Your task to perform on an android device: Open Google Chrome and click the shortcut for Amazon.com Image 0: 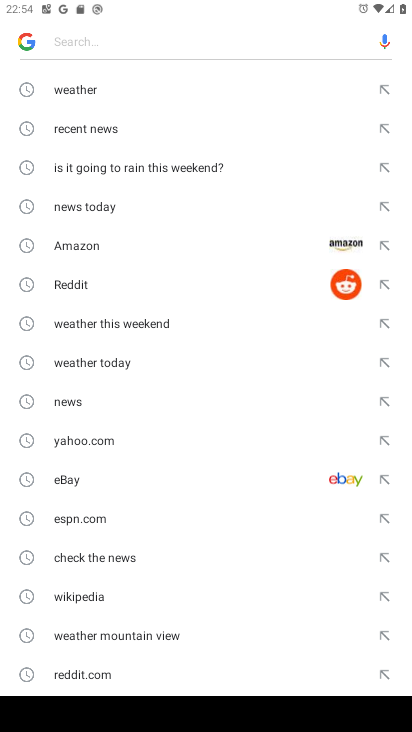
Step 0: press home button
Your task to perform on an android device: Open Google Chrome and click the shortcut for Amazon.com Image 1: 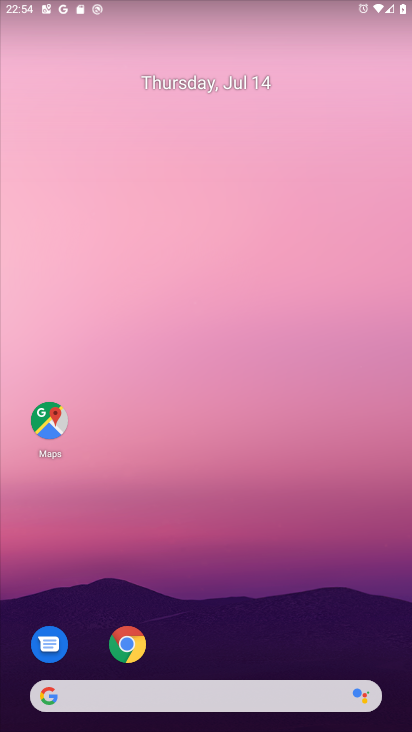
Step 1: click (127, 636)
Your task to perform on an android device: Open Google Chrome and click the shortcut for Amazon.com Image 2: 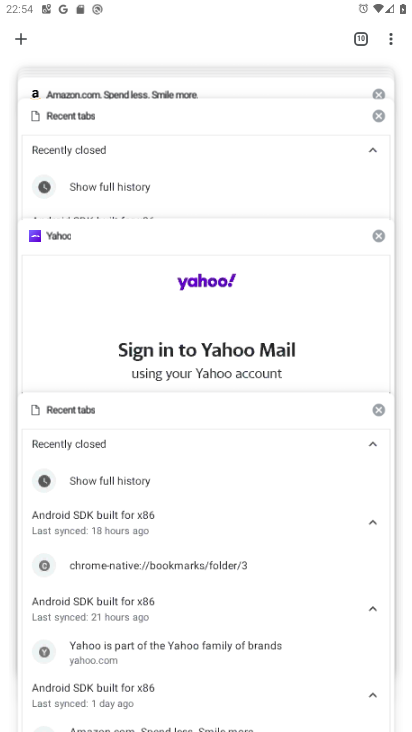
Step 2: click (24, 40)
Your task to perform on an android device: Open Google Chrome and click the shortcut for Amazon.com Image 3: 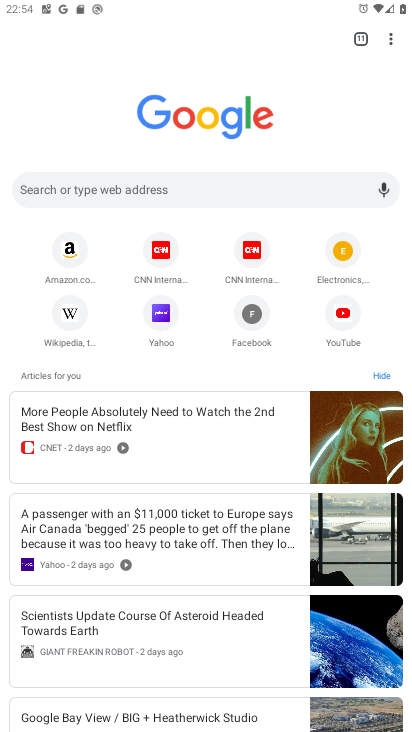
Step 3: click (82, 248)
Your task to perform on an android device: Open Google Chrome and click the shortcut for Amazon.com Image 4: 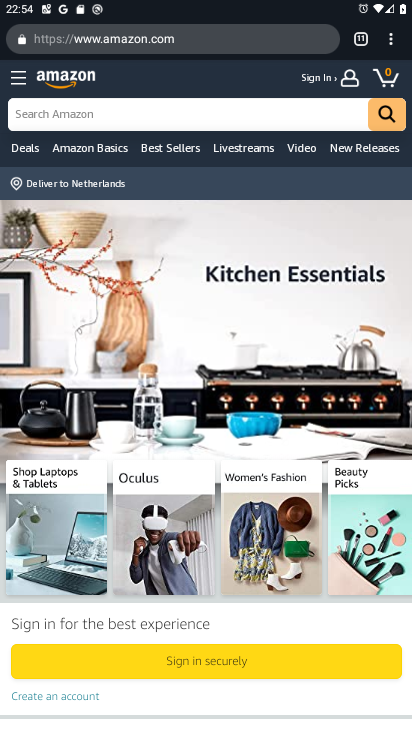
Step 4: task complete